Your task to perform on an android device: open a bookmark in the chrome app Image 0: 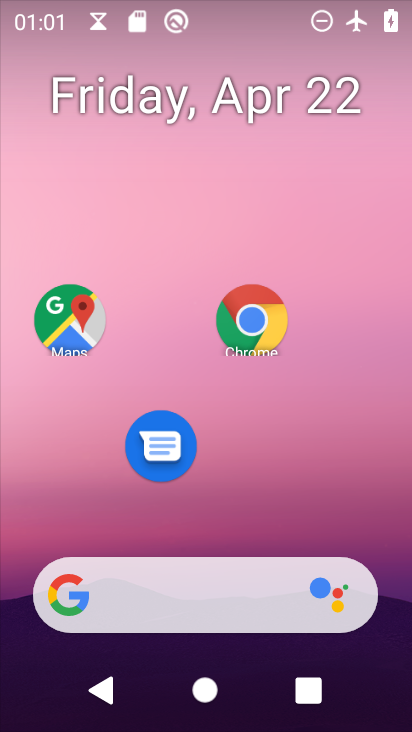
Step 0: drag from (213, 466) to (221, 93)
Your task to perform on an android device: open a bookmark in the chrome app Image 1: 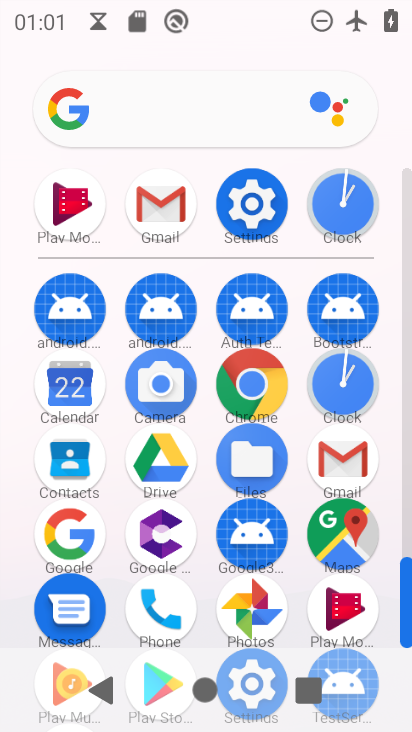
Step 1: click (251, 380)
Your task to perform on an android device: open a bookmark in the chrome app Image 2: 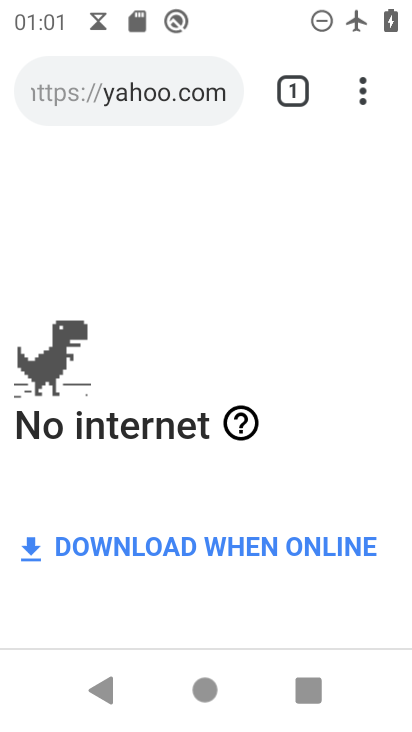
Step 2: task complete